Your task to perform on an android device: make emails show in primary in the gmail app Image 0: 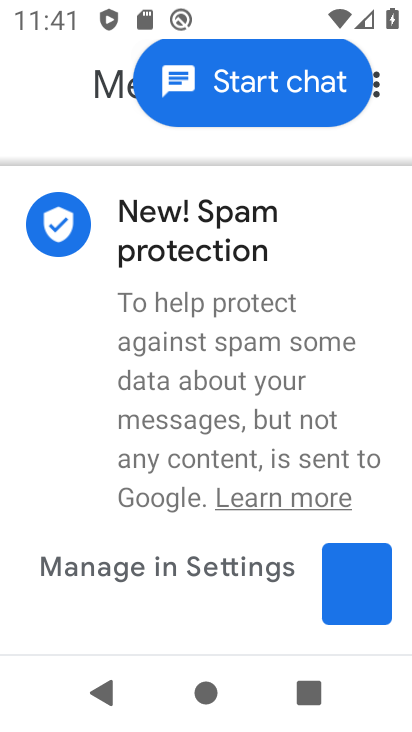
Step 0: press home button
Your task to perform on an android device: make emails show in primary in the gmail app Image 1: 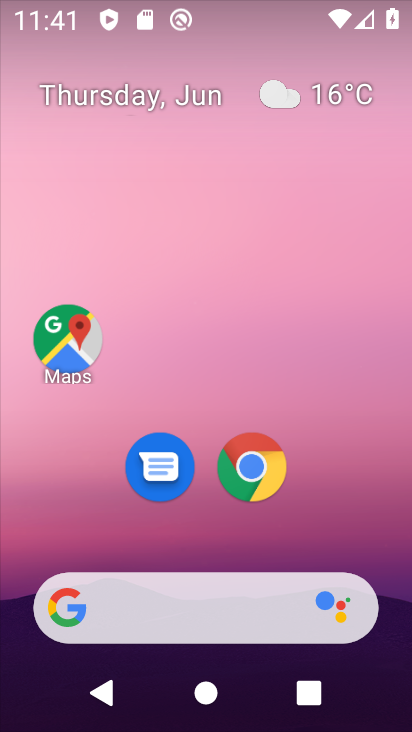
Step 1: click (270, 36)
Your task to perform on an android device: make emails show in primary in the gmail app Image 2: 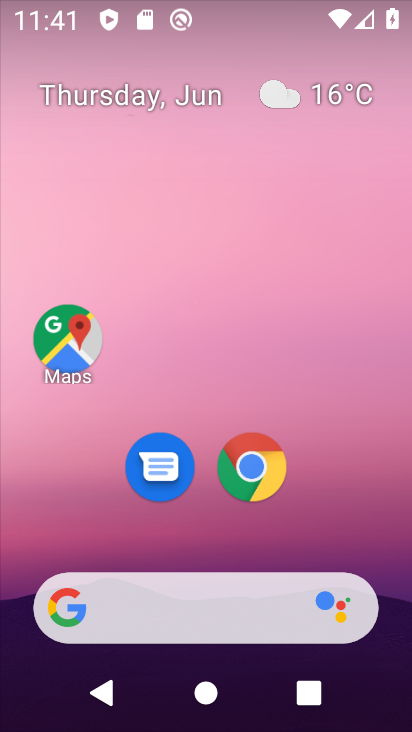
Step 2: drag from (399, 613) to (271, 10)
Your task to perform on an android device: make emails show in primary in the gmail app Image 3: 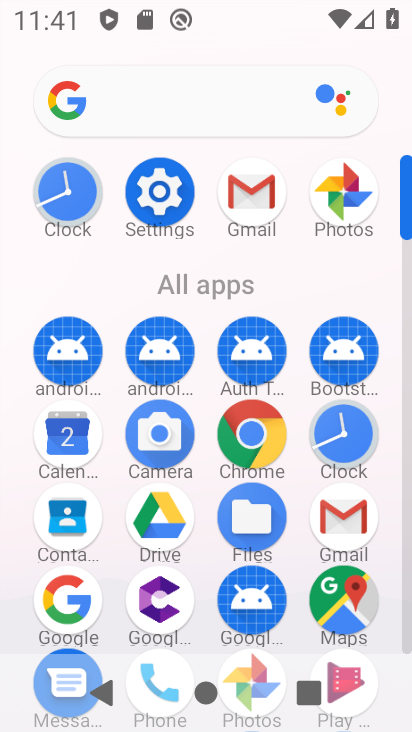
Step 3: click (404, 642)
Your task to perform on an android device: make emails show in primary in the gmail app Image 4: 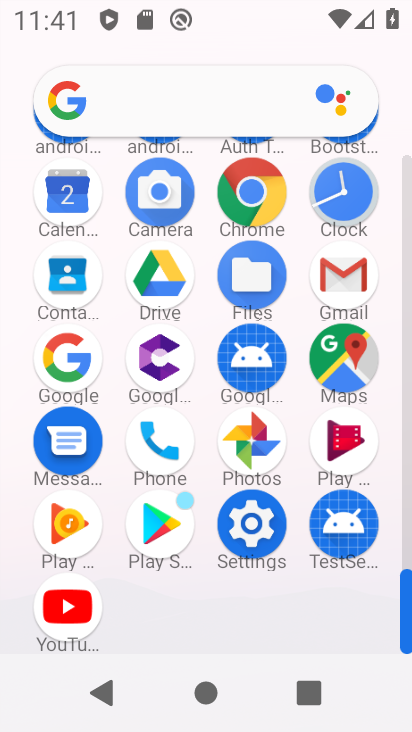
Step 4: click (341, 275)
Your task to perform on an android device: make emails show in primary in the gmail app Image 5: 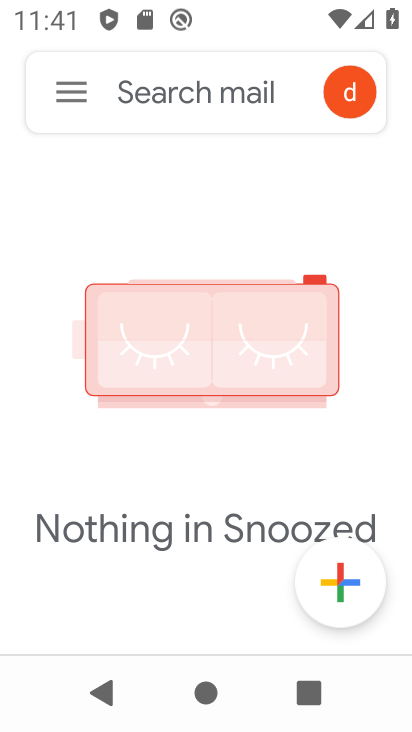
Step 5: click (67, 94)
Your task to perform on an android device: make emails show in primary in the gmail app Image 6: 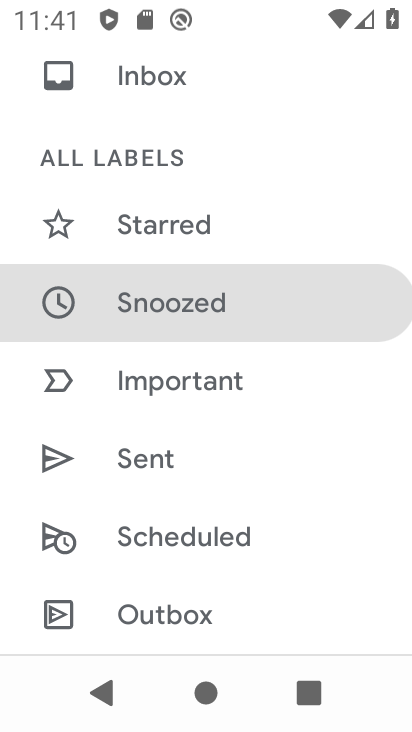
Step 6: drag from (287, 580) to (294, 123)
Your task to perform on an android device: make emails show in primary in the gmail app Image 7: 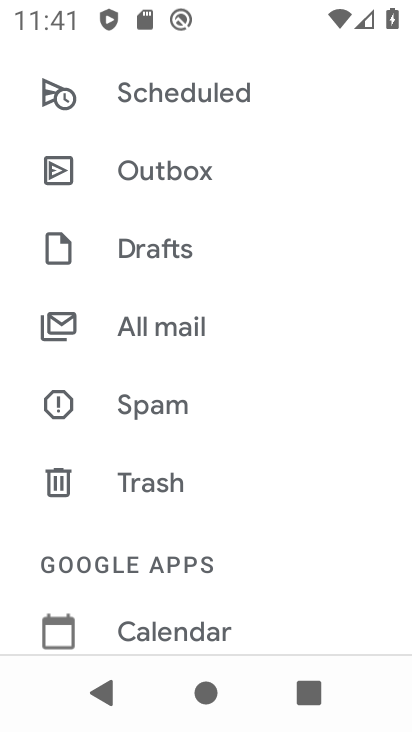
Step 7: drag from (233, 596) to (321, 46)
Your task to perform on an android device: make emails show in primary in the gmail app Image 8: 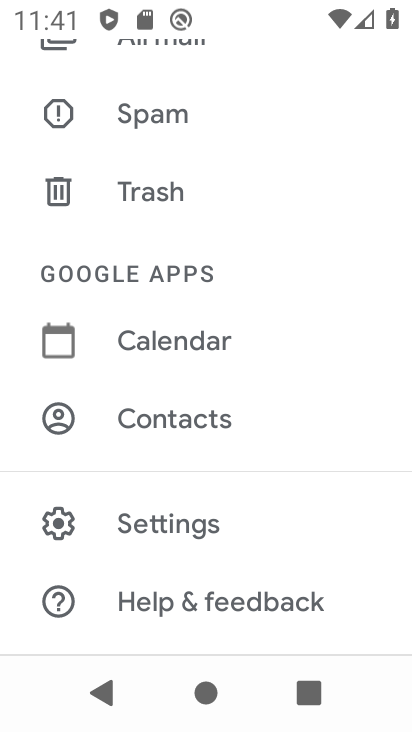
Step 8: click (176, 510)
Your task to perform on an android device: make emails show in primary in the gmail app Image 9: 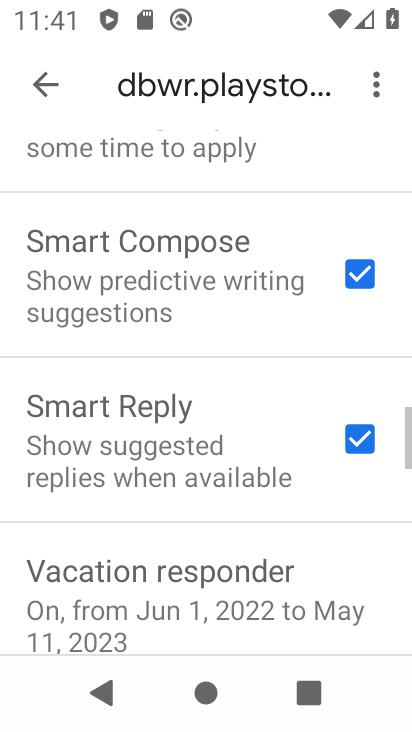
Step 9: drag from (293, 151) to (228, 507)
Your task to perform on an android device: make emails show in primary in the gmail app Image 10: 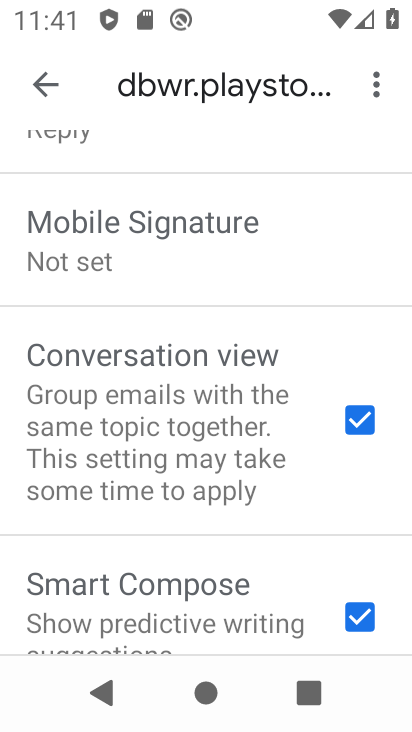
Step 10: drag from (280, 202) to (248, 578)
Your task to perform on an android device: make emails show in primary in the gmail app Image 11: 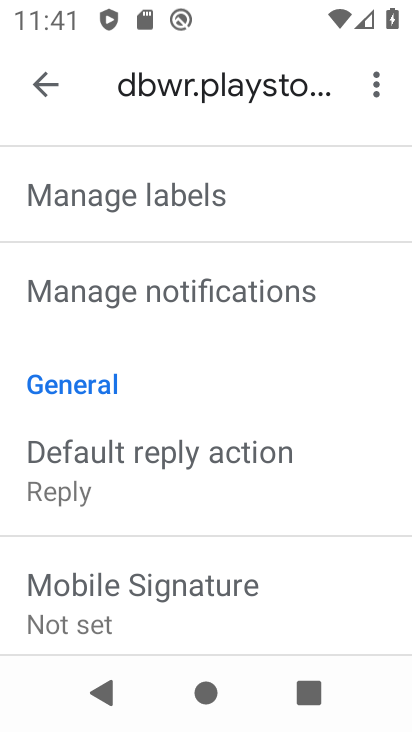
Step 11: drag from (335, 228) to (277, 607)
Your task to perform on an android device: make emails show in primary in the gmail app Image 12: 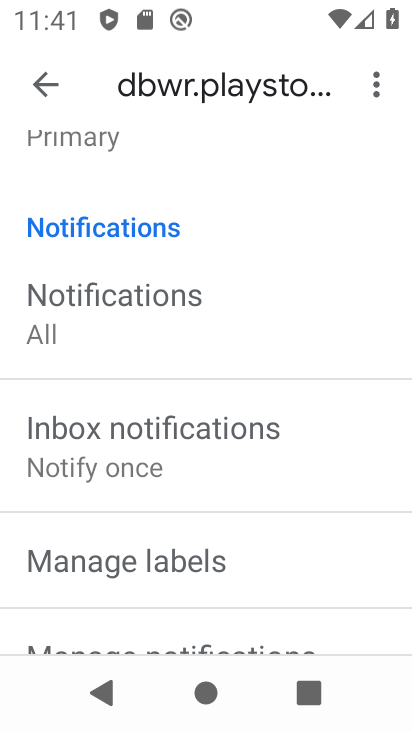
Step 12: drag from (288, 227) to (273, 448)
Your task to perform on an android device: make emails show in primary in the gmail app Image 13: 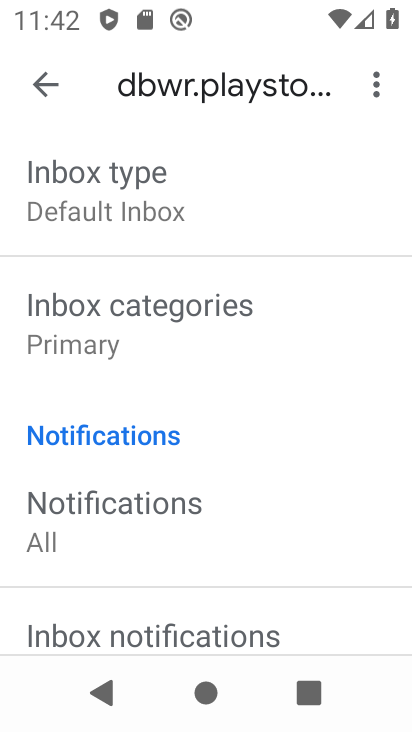
Step 13: click (88, 316)
Your task to perform on an android device: make emails show in primary in the gmail app Image 14: 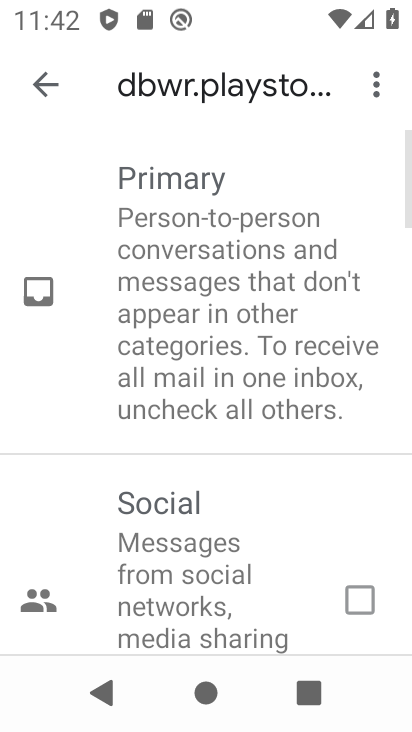
Step 14: task complete